Your task to perform on an android device: toggle pop-ups in chrome Image 0: 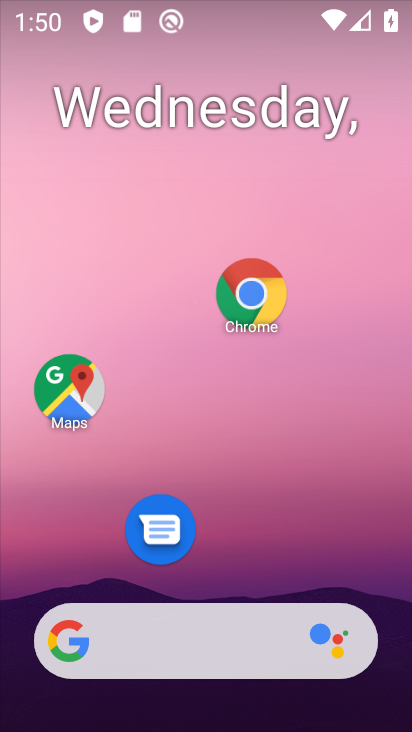
Step 0: drag from (248, 581) to (272, 259)
Your task to perform on an android device: toggle pop-ups in chrome Image 1: 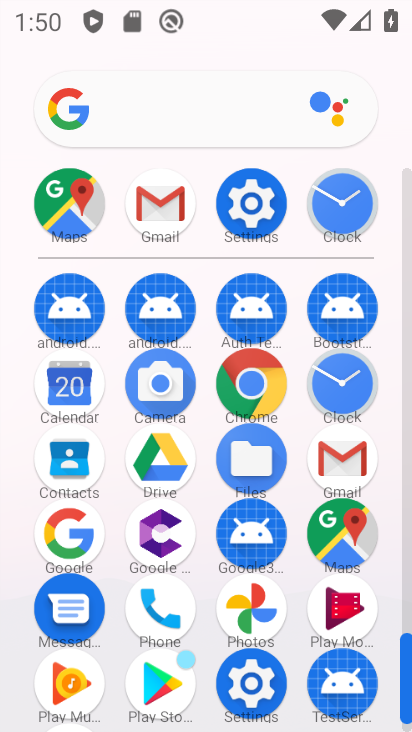
Step 1: click (252, 386)
Your task to perform on an android device: toggle pop-ups in chrome Image 2: 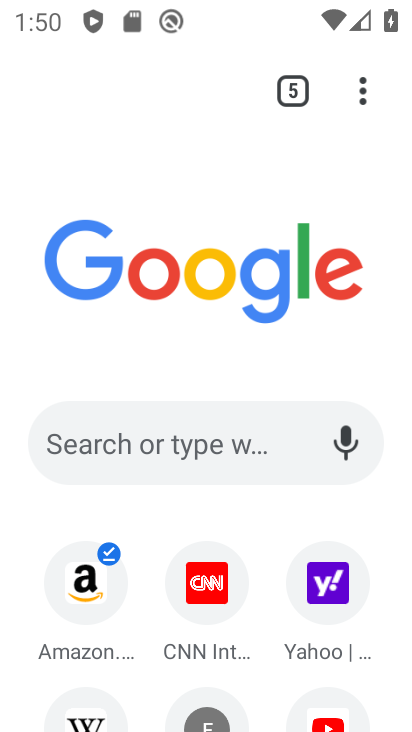
Step 2: click (368, 98)
Your task to perform on an android device: toggle pop-ups in chrome Image 3: 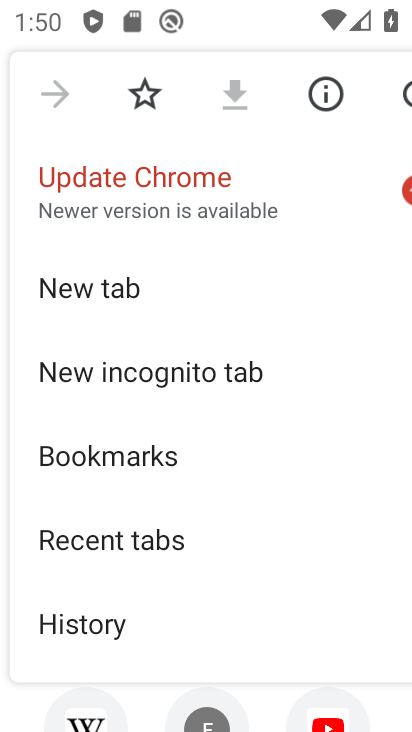
Step 3: drag from (116, 613) to (150, 420)
Your task to perform on an android device: toggle pop-ups in chrome Image 4: 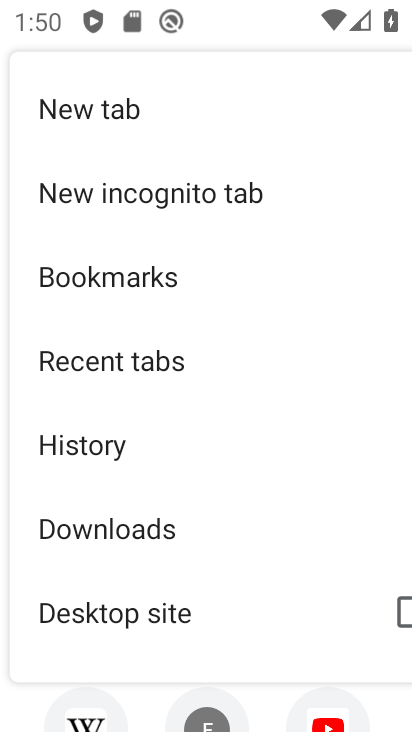
Step 4: drag from (152, 604) to (169, 385)
Your task to perform on an android device: toggle pop-ups in chrome Image 5: 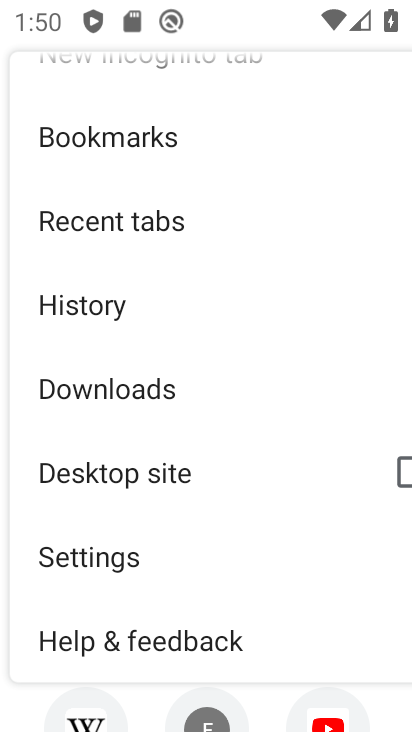
Step 5: click (123, 569)
Your task to perform on an android device: toggle pop-ups in chrome Image 6: 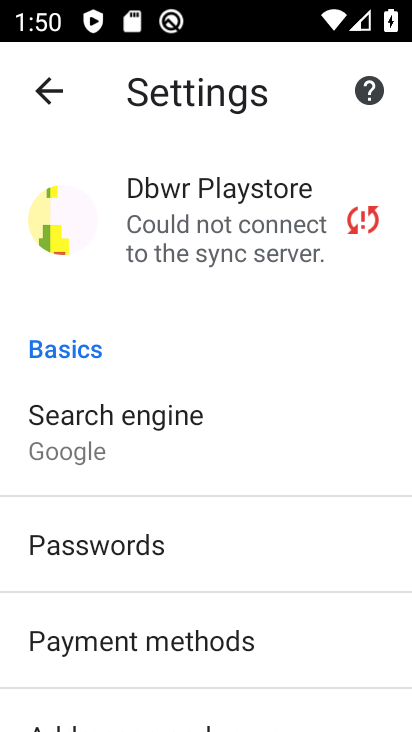
Step 6: drag from (134, 607) to (163, 456)
Your task to perform on an android device: toggle pop-ups in chrome Image 7: 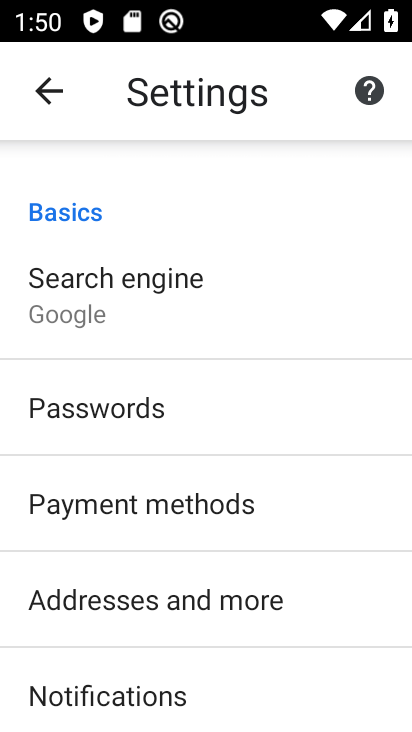
Step 7: drag from (162, 616) to (190, 429)
Your task to perform on an android device: toggle pop-ups in chrome Image 8: 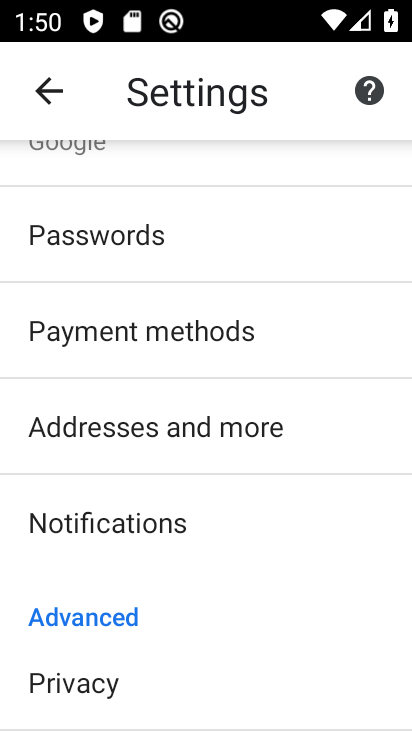
Step 8: drag from (189, 620) to (209, 458)
Your task to perform on an android device: toggle pop-ups in chrome Image 9: 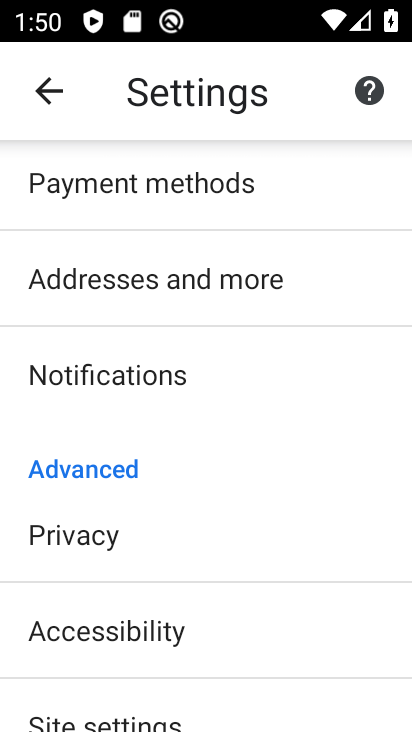
Step 9: drag from (196, 656) to (210, 486)
Your task to perform on an android device: toggle pop-ups in chrome Image 10: 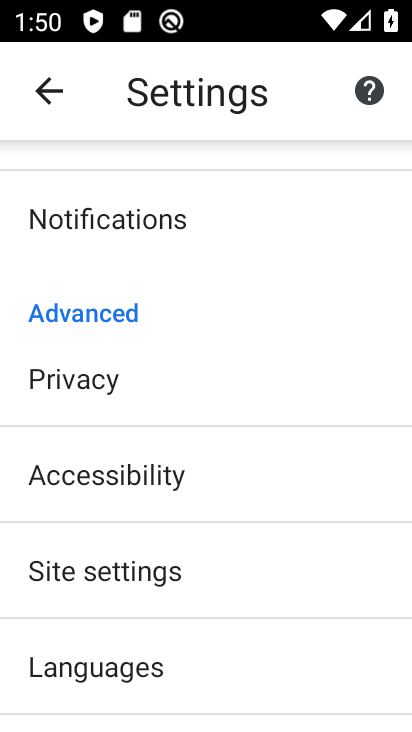
Step 10: click (138, 576)
Your task to perform on an android device: toggle pop-ups in chrome Image 11: 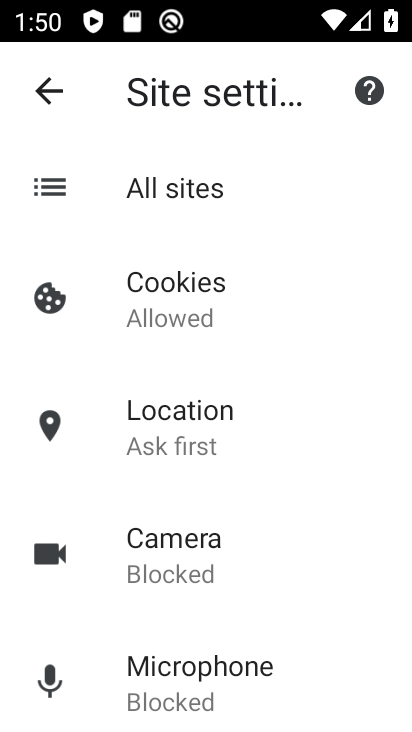
Step 11: drag from (249, 617) to (300, 400)
Your task to perform on an android device: toggle pop-ups in chrome Image 12: 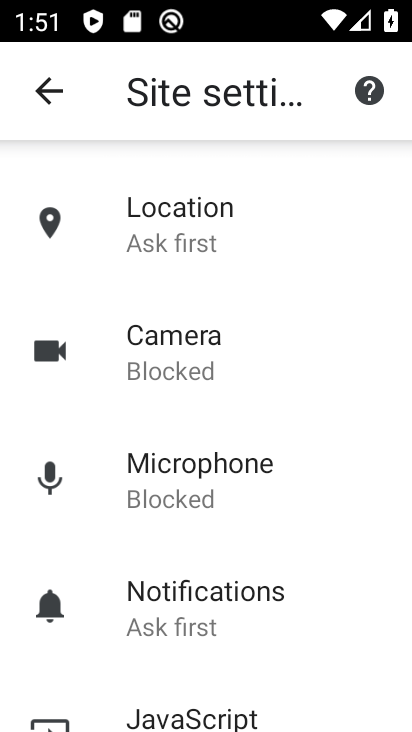
Step 12: drag from (191, 675) to (221, 467)
Your task to perform on an android device: toggle pop-ups in chrome Image 13: 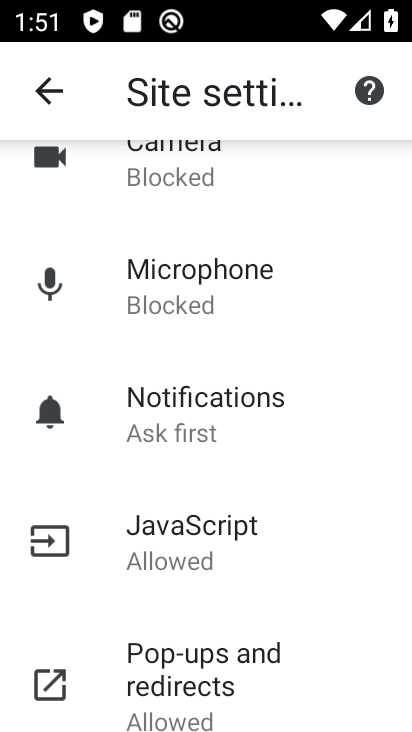
Step 13: click (230, 704)
Your task to perform on an android device: toggle pop-ups in chrome Image 14: 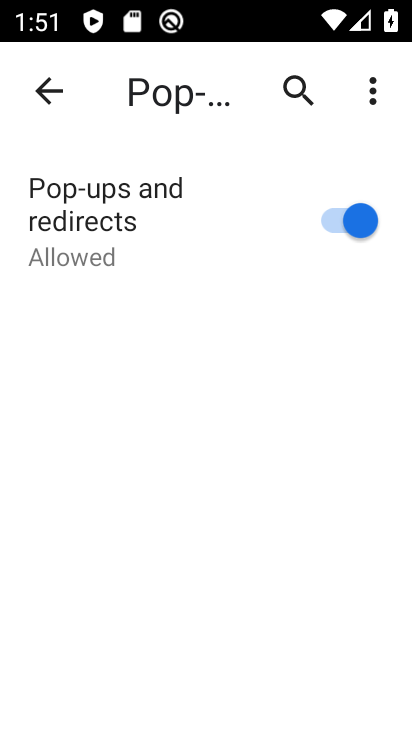
Step 14: click (326, 226)
Your task to perform on an android device: toggle pop-ups in chrome Image 15: 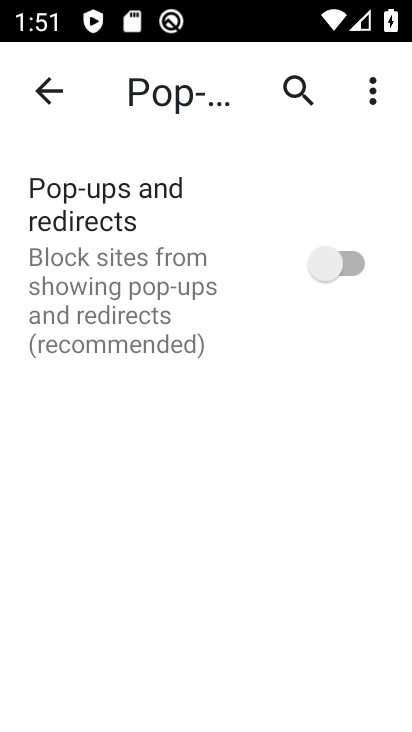
Step 15: task complete